Your task to perform on an android device: Play the last video I watched on Youtube Image 0: 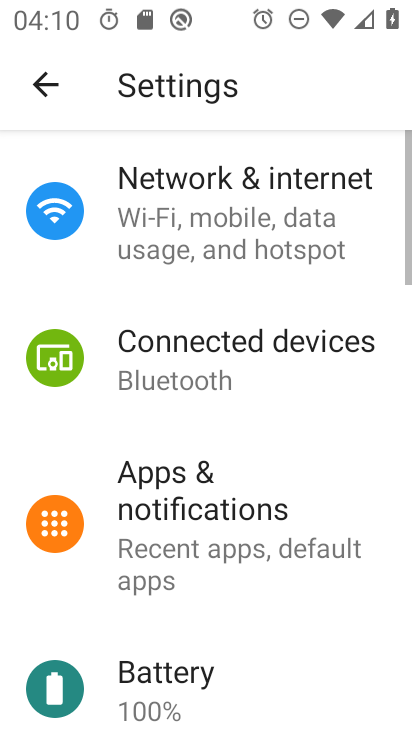
Step 0: press home button
Your task to perform on an android device: Play the last video I watched on Youtube Image 1: 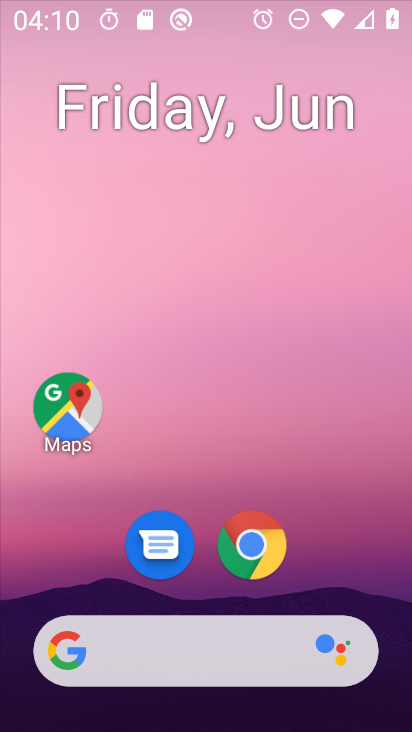
Step 1: drag from (270, 591) to (371, 12)
Your task to perform on an android device: Play the last video I watched on Youtube Image 2: 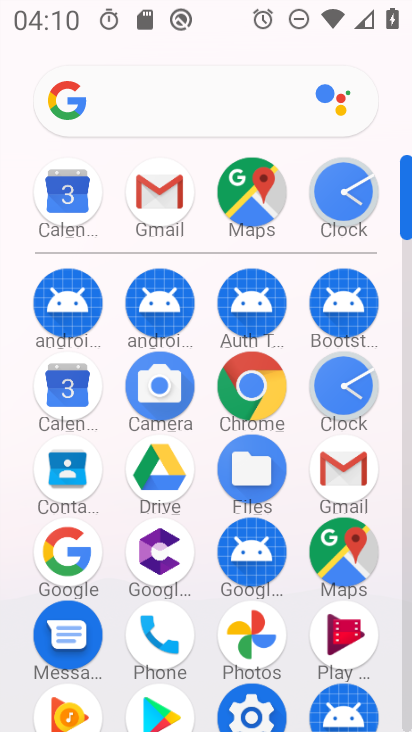
Step 2: drag from (298, 658) to (314, 149)
Your task to perform on an android device: Play the last video I watched on Youtube Image 3: 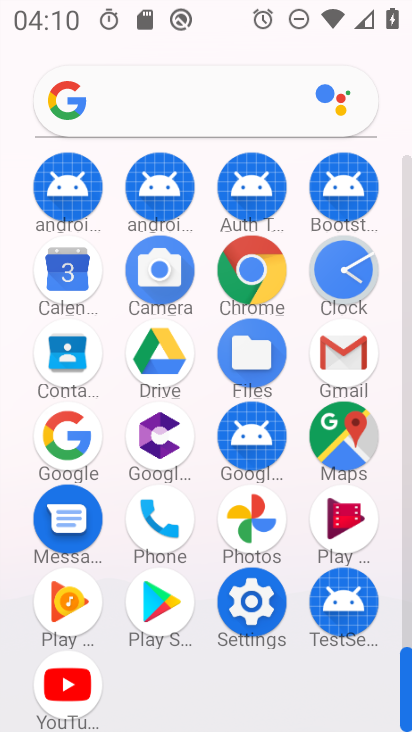
Step 3: click (46, 691)
Your task to perform on an android device: Play the last video I watched on Youtube Image 4: 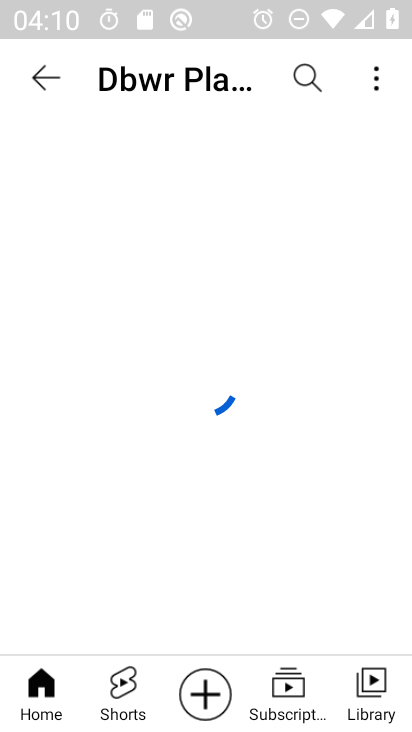
Step 4: click (370, 680)
Your task to perform on an android device: Play the last video I watched on Youtube Image 5: 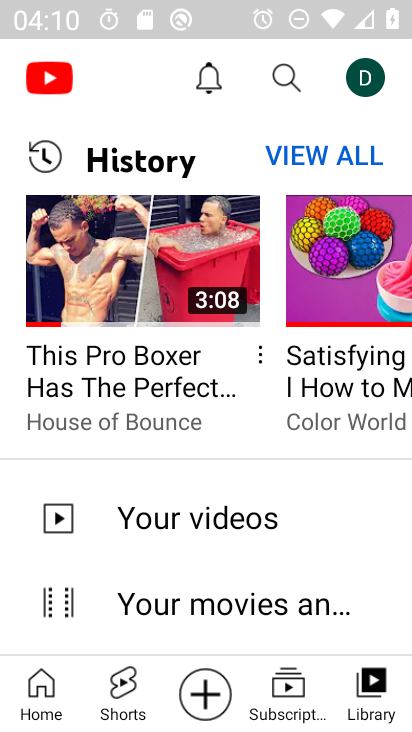
Step 5: click (126, 246)
Your task to perform on an android device: Play the last video I watched on Youtube Image 6: 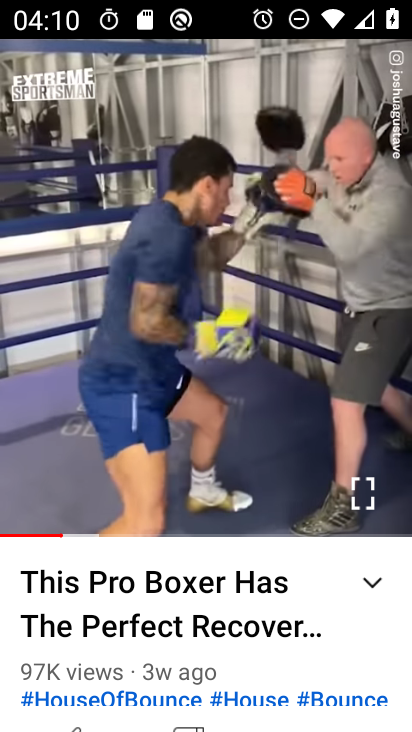
Step 6: task complete